Your task to perform on an android device: change the clock display to digital Image 0: 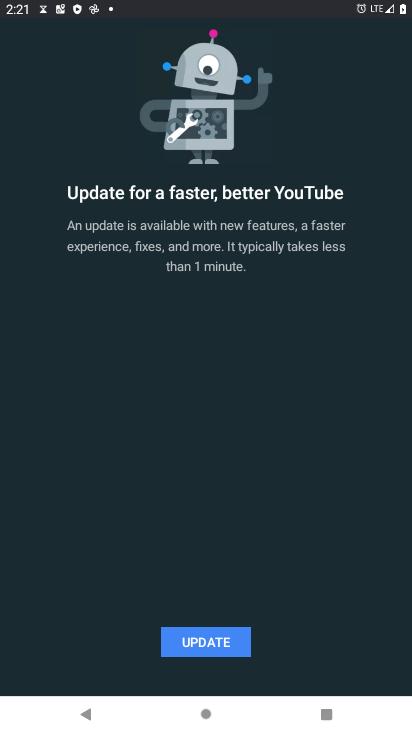
Step 0: press home button
Your task to perform on an android device: change the clock display to digital Image 1: 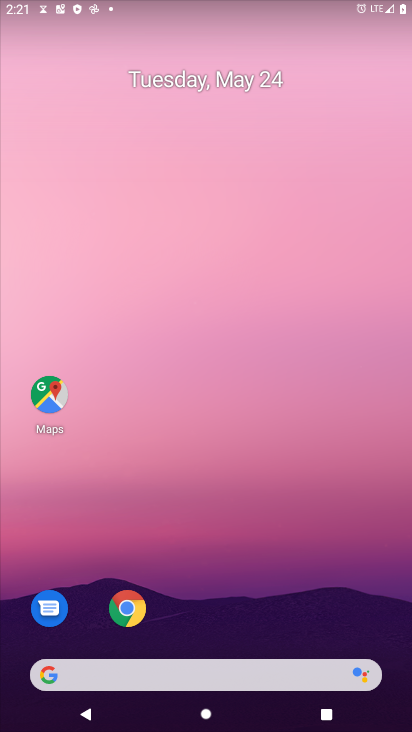
Step 1: drag from (248, 679) to (288, 234)
Your task to perform on an android device: change the clock display to digital Image 2: 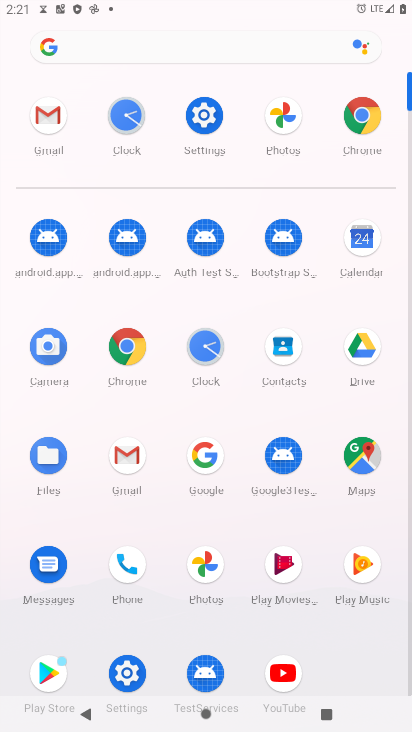
Step 2: click (199, 341)
Your task to perform on an android device: change the clock display to digital Image 3: 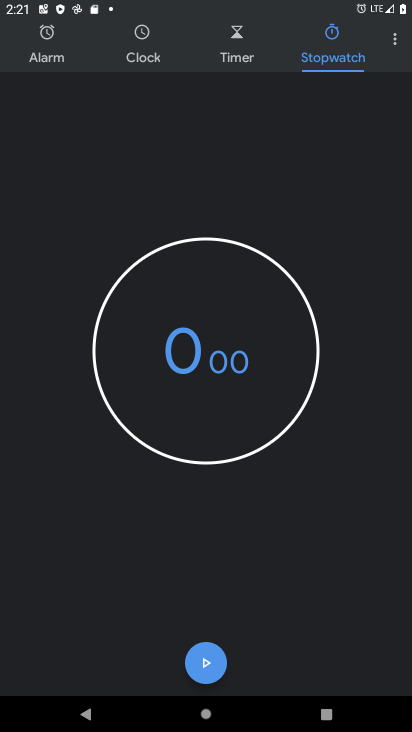
Step 3: click (380, 57)
Your task to perform on an android device: change the clock display to digital Image 4: 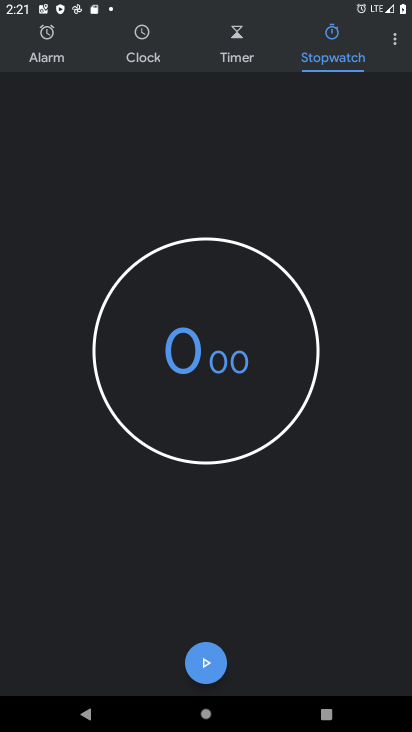
Step 4: click (390, 48)
Your task to perform on an android device: change the clock display to digital Image 5: 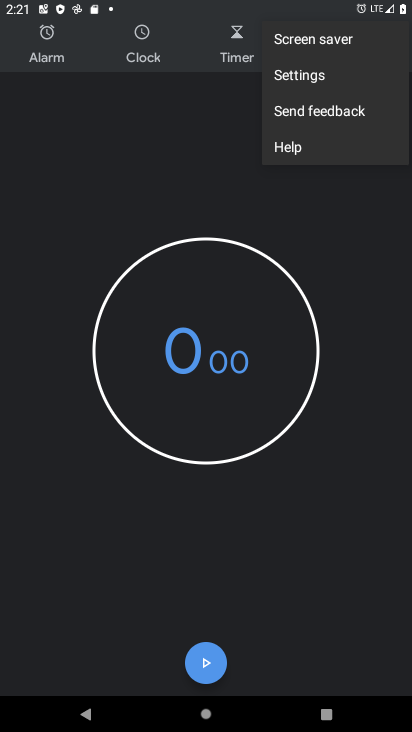
Step 5: click (271, 81)
Your task to perform on an android device: change the clock display to digital Image 6: 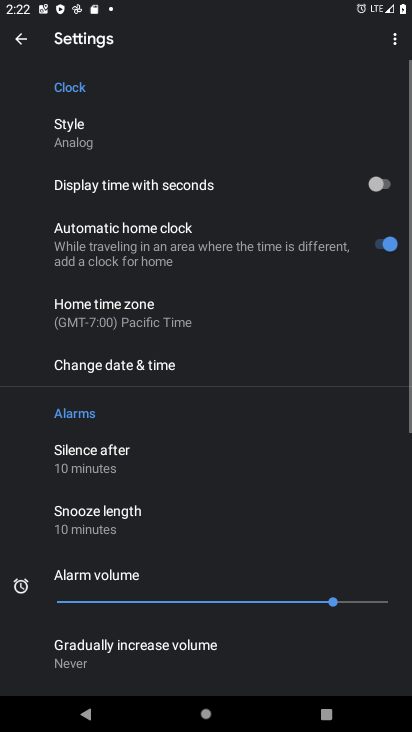
Step 6: click (99, 139)
Your task to perform on an android device: change the clock display to digital Image 7: 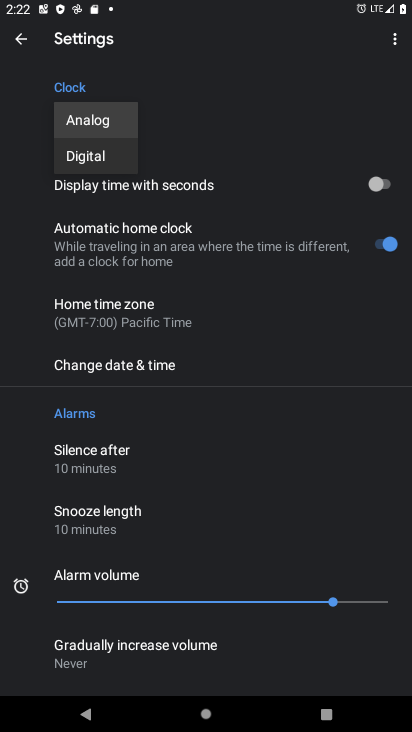
Step 7: click (113, 152)
Your task to perform on an android device: change the clock display to digital Image 8: 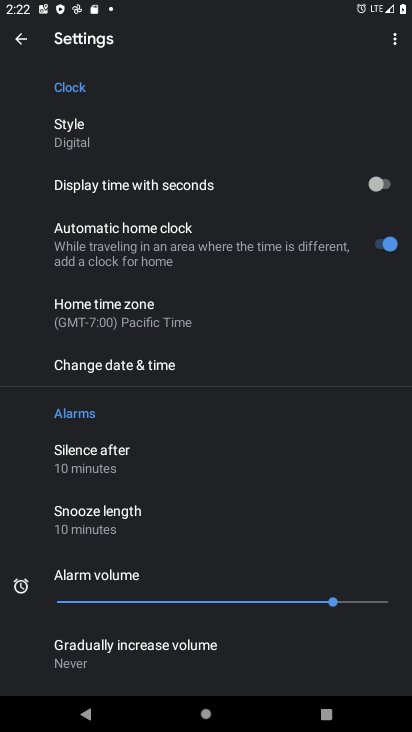
Step 8: task complete